Your task to perform on an android device: Open the phone app and click the voicemail tab. Image 0: 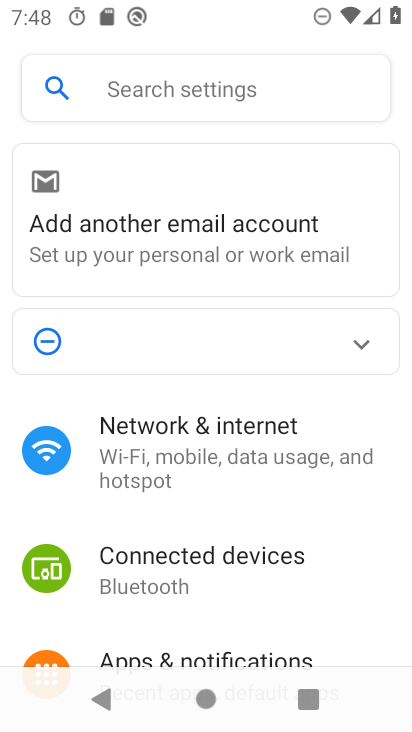
Step 0: press home button
Your task to perform on an android device: Open the phone app and click the voicemail tab. Image 1: 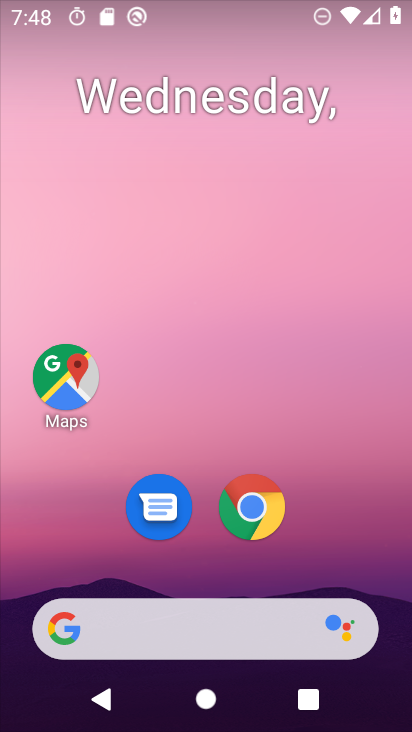
Step 1: drag from (235, 662) to (255, 142)
Your task to perform on an android device: Open the phone app and click the voicemail tab. Image 2: 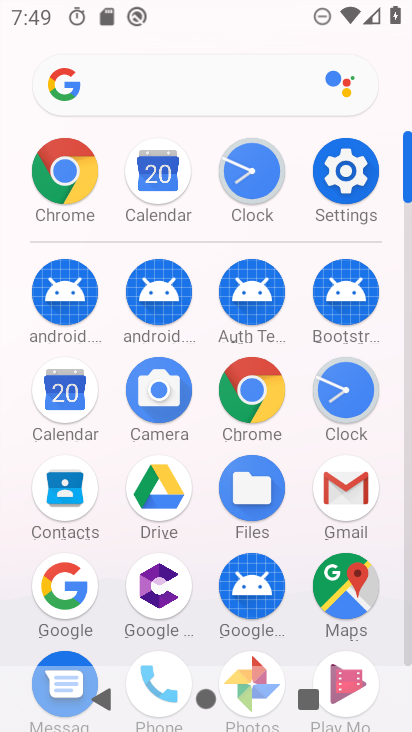
Step 2: click (160, 650)
Your task to perform on an android device: Open the phone app and click the voicemail tab. Image 3: 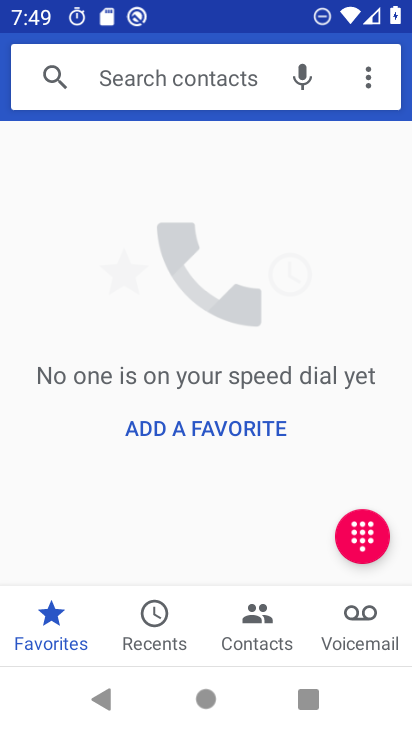
Step 3: click (339, 625)
Your task to perform on an android device: Open the phone app and click the voicemail tab. Image 4: 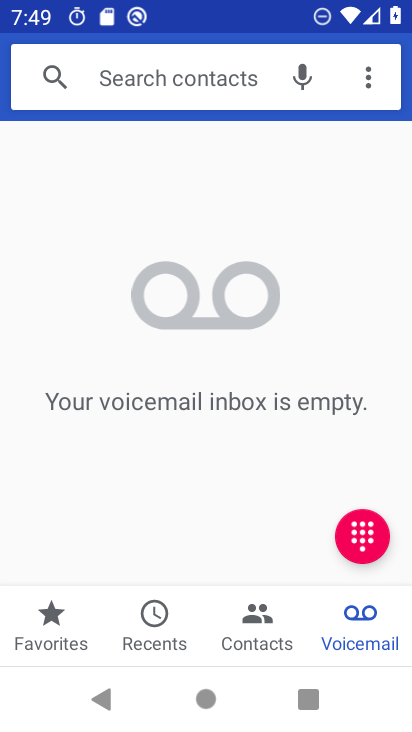
Step 4: task complete